Your task to perform on an android device: Open calendar and show me the second week of next month Image 0: 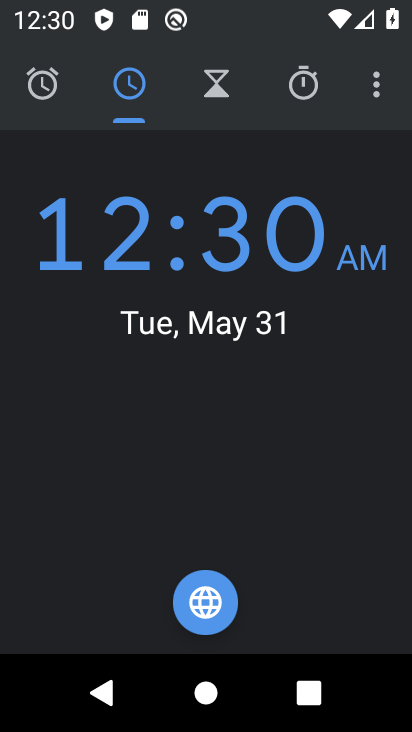
Step 0: press home button
Your task to perform on an android device: Open calendar and show me the second week of next month Image 1: 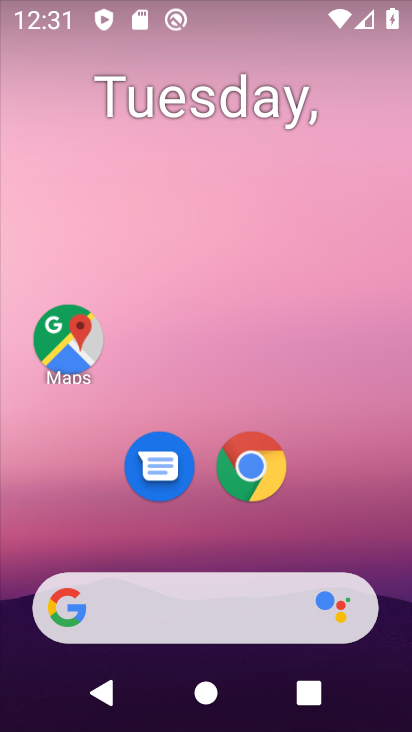
Step 1: drag from (380, 514) to (372, 190)
Your task to perform on an android device: Open calendar and show me the second week of next month Image 2: 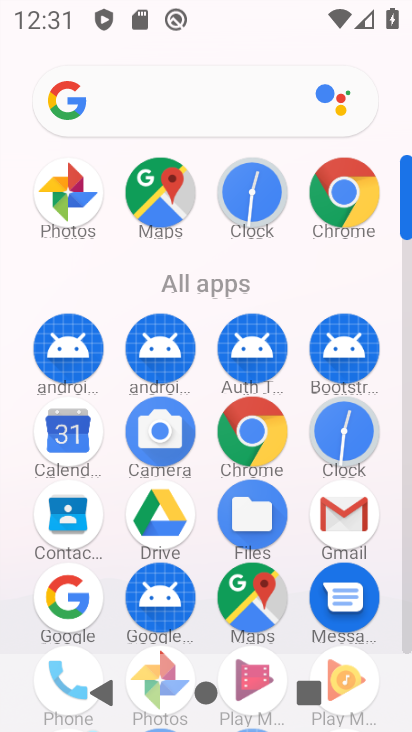
Step 2: click (88, 444)
Your task to perform on an android device: Open calendar and show me the second week of next month Image 3: 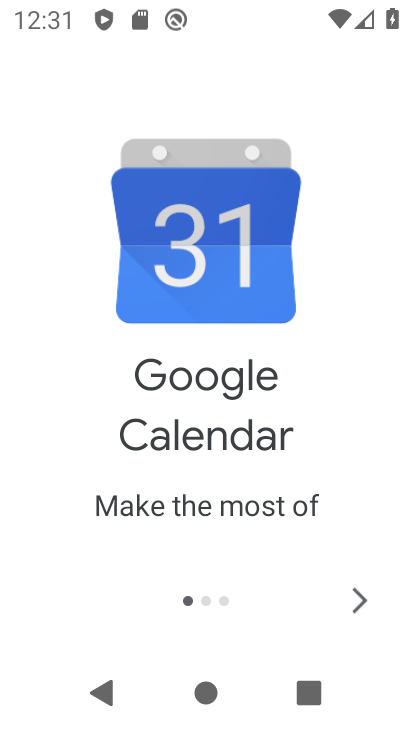
Step 3: click (362, 608)
Your task to perform on an android device: Open calendar and show me the second week of next month Image 4: 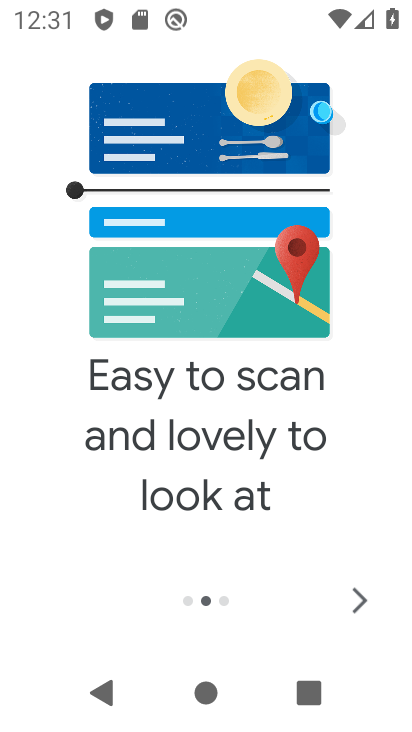
Step 4: click (362, 608)
Your task to perform on an android device: Open calendar and show me the second week of next month Image 5: 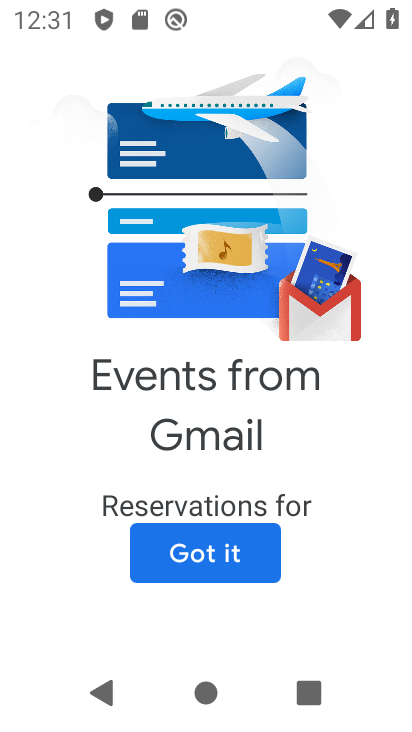
Step 5: click (244, 566)
Your task to perform on an android device: Open calendar and show me the second week of next month Image 6: 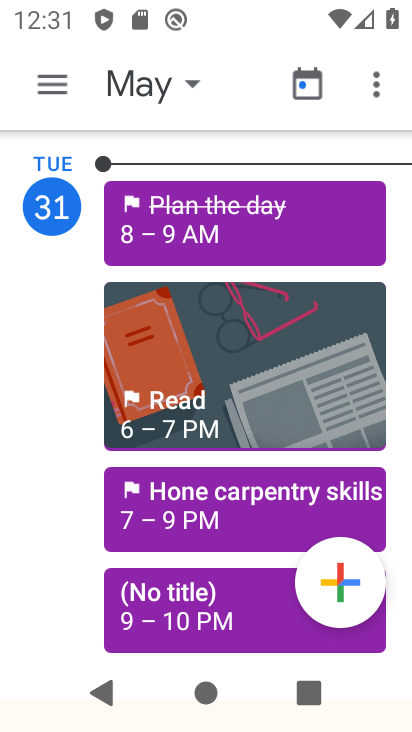
Step 6: click (195, 83)
Your task to perform on an android device: Open calendar and show me the second week of next month Image 7: 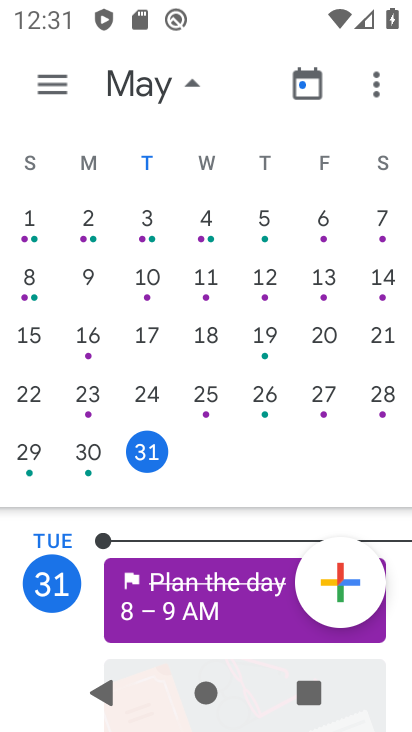
Step 7: drag from (395, 188) to (6, 187)
Your task to perform on an android device: Open calendar and show me the second week of next month Image 8: 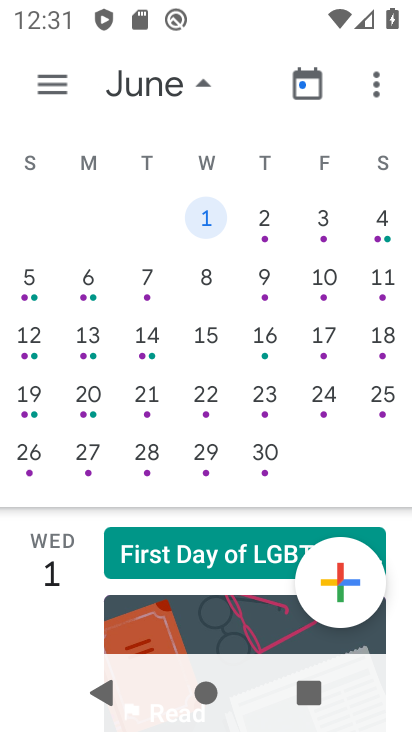
Step 8: click (89, 293)
Your task to perform on an android device: Open calendar and show me the second week of next month Image 9: 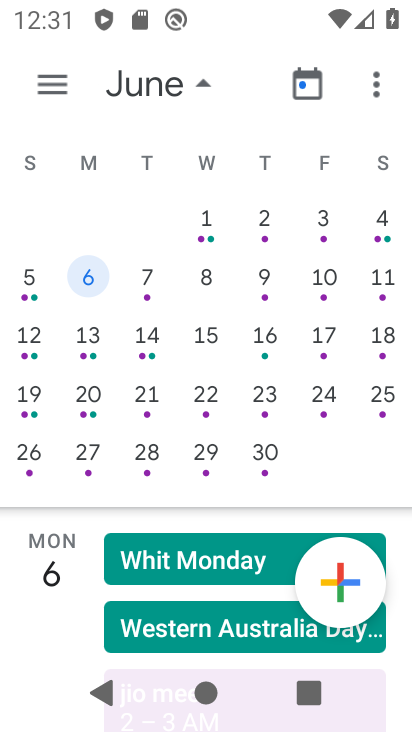
Step 9: task complete